Your task to perform on an android device: open app "LiveIn - Share Your Moment" (install if not already installed) and enter user name: "certifies@gmail.com" and password: "compartmented" Image 0: 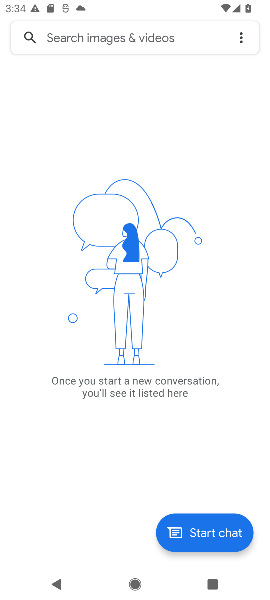
Step 0: click (43, 37)
Your task to perform on an android device: open app "LiveIn - Share Your Moment" (install if not already installed) and enter user name: "certifies@gmail.com" and password: "compartmented" Image 1: 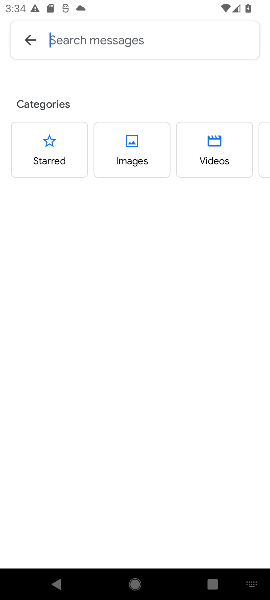
Step 1: click (36, 33)
Your task to perform on an android device: open app "LiveIn - Share Your Moment" (install if not already installed) and enter user name: "certifies@gmail.com" and password: "compartmented" Image 2: 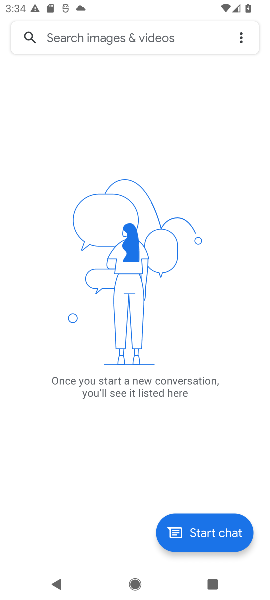
Step 2: press home button
Your task to perform on an android device: open app "LiveIn - Share Your Moment" (install if not already installed) and enter user name: "certifies@gmail.com" and password: "compartmented" Image 3: 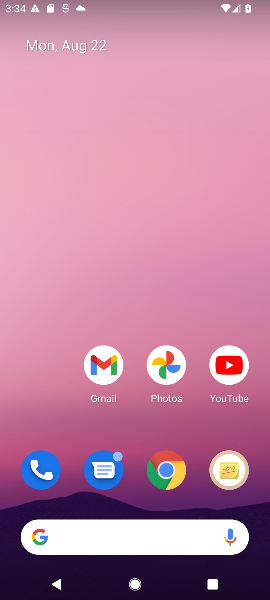
Step 3: drag from (113, 518) to (129, 141)
Your task to perform on an android device: open app "LiveIn - Share Your Moment" (install if not already installed) and enter user name: "certifies@gmail.com" and password: "compartmented" Image 4: 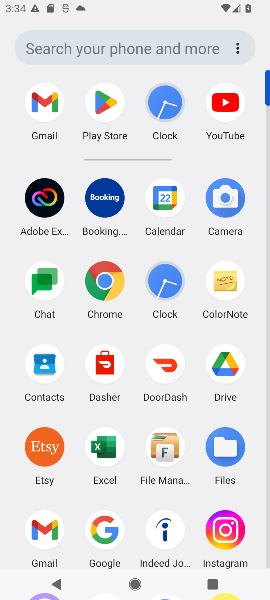
Step 4: click (102, 102)
Your task to perform on an android device: open app "LiveIn - Share Your Moment" (install if not already installed) and enter user name: "certifies@gmail.com" and password: "compartmented" Image 5: 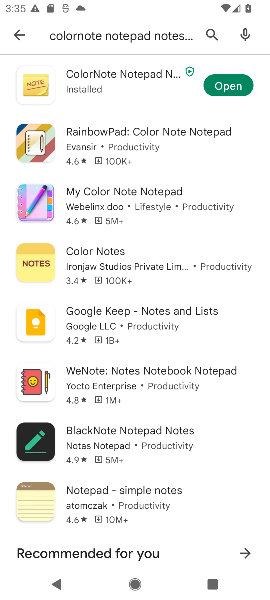
Step 5: click (24, 35)
Your task to perform on an android device: open app "LiveIn - Share Your Moment" (install if not already installed) and enter user name: "certifies@gmail.com" and password: "compartmented" Image 6: 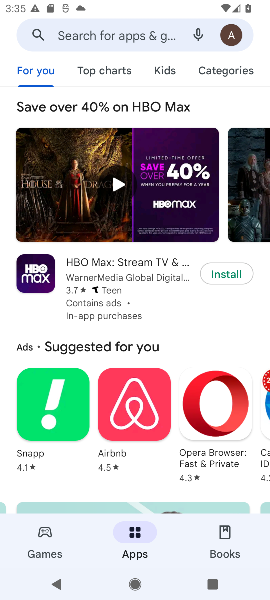
Step 6: click (102, 28)
Your task to perform on an android device: open app "LiveIn - Share Your Moment" (install if not already installed) and enter user name: "certifies@gmail.com" and password: "compartmented" Image 7: 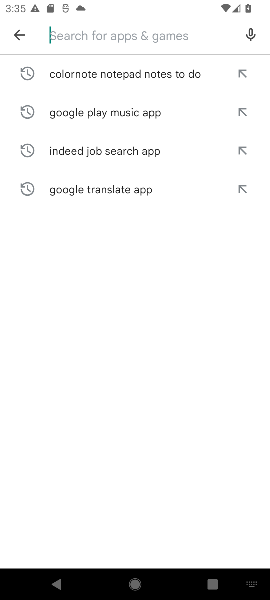
Step 7: type "LiveIn - Share Your Moment" (install if not already installed) and enter user name "
Your task to perform on an android device: open app "LiveIn - Share Your Moment" (install if not already installed) and enter user name: "certifies@gmail.com" and password: "compartmented" Image 8: 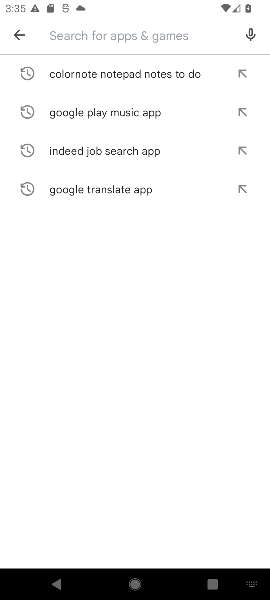
Step 8: click (93, 36)
Your task to perform on an android device: open app "LiveIn - Share Your Moment" (install if not already installed) and enter user name: "certifies@gmail.com" and password: "compartmented" Image 9: 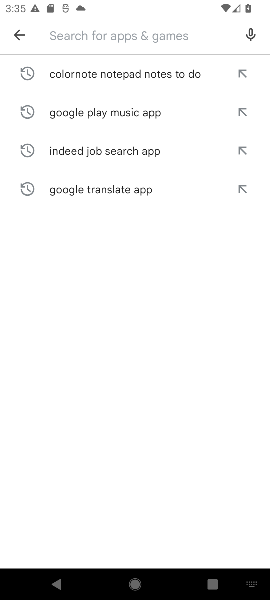
Step 9: type "LiveIn - Share Your Moment" (install if not already installed) and enter user name "
Your task to perform on an android device: open app "LiveIn - Share Your Moment" (install if not already installed) and enter user name: "certifies@gmail.com" and password: "compartmented" Image 10: 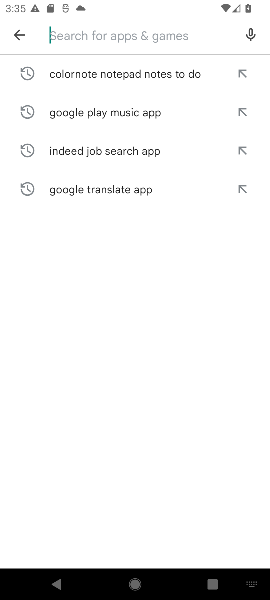
Step 10: click (92, 29)
Your task to perform on an android device: open app "LiveIn - Share Your Moment" (install if not already installed) and enter user name: "certifies@gmail.com" and password: "compartmented" Image 11: 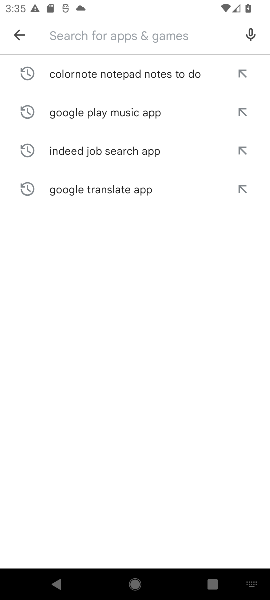
Step 11: click (92, 29)
Your task to perform on an android device: open app "LiveIn - Share Your Moment" (install if not already installed) and enter user name: "certifies@gmail.com" and password: "compartmented" Image 12: 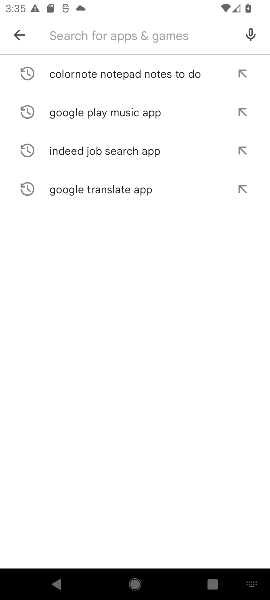
Step 12: click (24, 34)
Your task to perform on an android device: open app "LiveIn - Share Your Moment" (install if not already installed) and enter user name: "certifies@gmail.com" and password: "compartmented" Image 13: 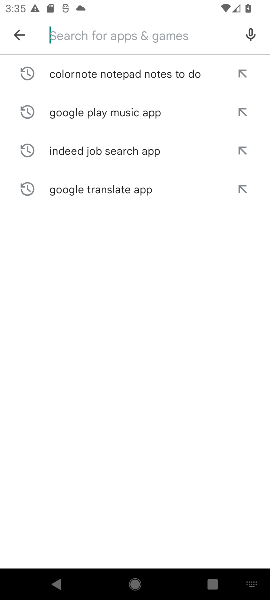
Step 13: click (78, 26)
Your task to perform on an android device: open app "LiveIn - Share Your Moment" (install if not already installed) and enter user name: "certifies@gmail.com" and password: "compartmented" Image 14: 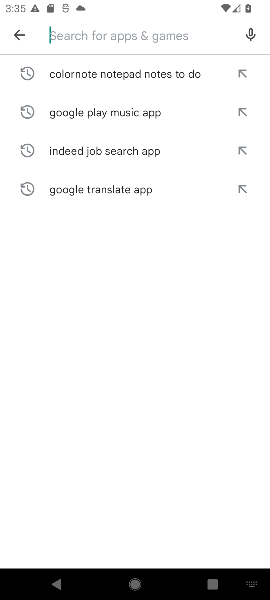
Step 14: type "LiveIn "
Your task to perform on an android device: open app "LiveIn - Share Your Moment" (install if not already installed) and enter user name: "certifies@gmail.com" and password: "compartmented" Image 15: 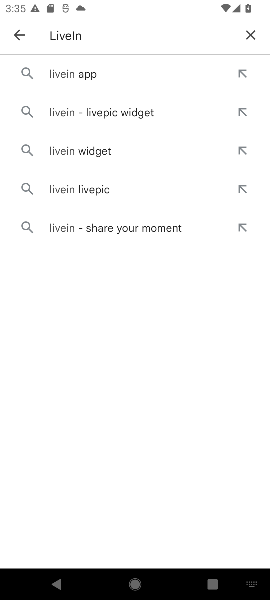
Step 15: click (82, 81)
Your task to perform on an android device: open app "LiveIn - Share Your Moment" (install if not already installed) and enter user name: "certifies@gmail.com" and password: "compartmented" Image 16: 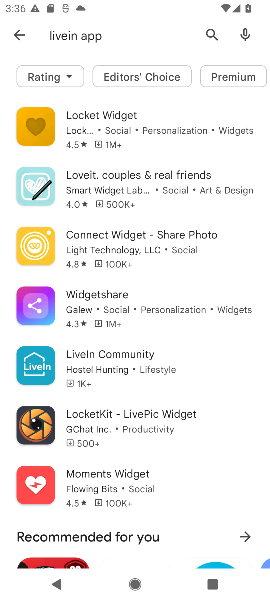
Step 16: drag from (125, 439) to (134, 191)
Your task to perform on an android device: open app "LiveIn - Share Your Moment" (install if not already installed) and enter user name: "certifies@gmail.com" and password: "compartmented" Image 17: 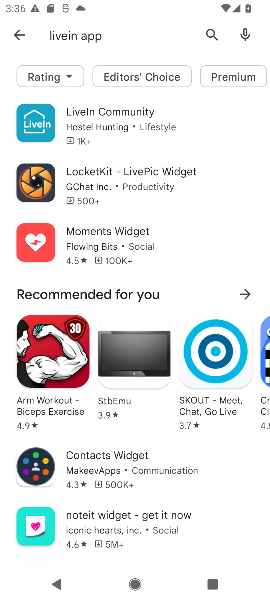
Step 17: drag from (110, 116) to (75, 531)
Your task to perform on an android device: open app "LiveIn - Share Your Moment" (install if not already installed) and enter user name: "certifies@gmail.com" and password: "compartmented" Image 18: 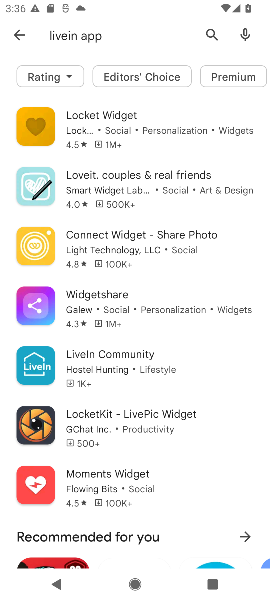
Step 18: click (19, 27)
Your task to perform on an android device: open app "LiveIn - Share Your Moment" (install if not already installed) and enter user name: "certifies@gmail.com" and password: "compartmented" Image 19: 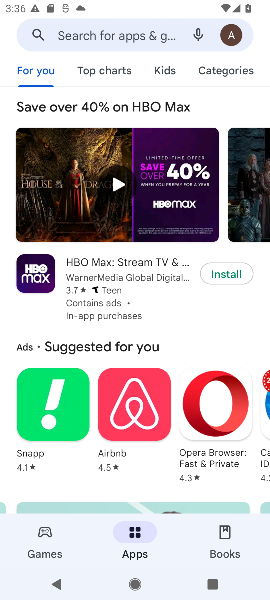
Step 19: click (99, 16)
Your task to perform on an android device: open app "LiveIn - Share Your Moment" (install if not already installed) and enter user name: "certifies@gmail.com" and password: "compartmented" Image 20: 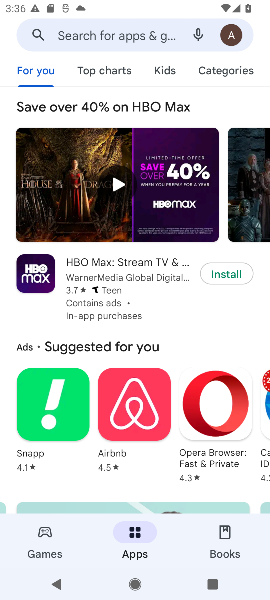
Step 20: click (99, 33)
Your task to perform on an android device: open app "LiveIn - Share Your Moment" (install if not already installed) and enter user name: "certifies@gmail.com" and password: "compartmented" Image 21: 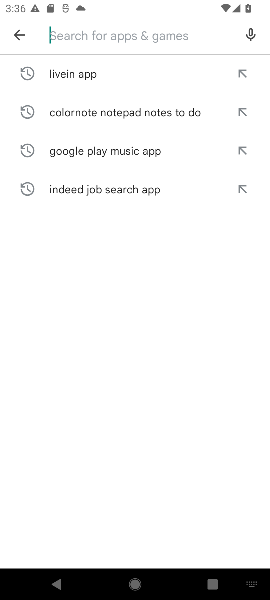
Step 21: type "l iveIn - Share Your Moment"
Your task to perform on an android device: open app "LiveIn - Share Your Moment" (install if not already installed) and enter user name: "certifies@gmail.com" and password: "compartmented" Image 22: 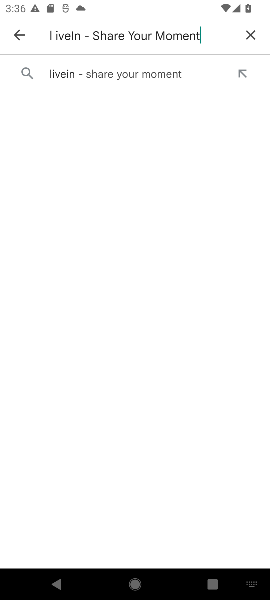
Step 22: click (74, 72)
Your task to perform on an android device: open app "LiveIn - Share Your Moment" (install if not already installed) and enter user name: "certifies@gmail.com" and password: "compartmented" Image 23: 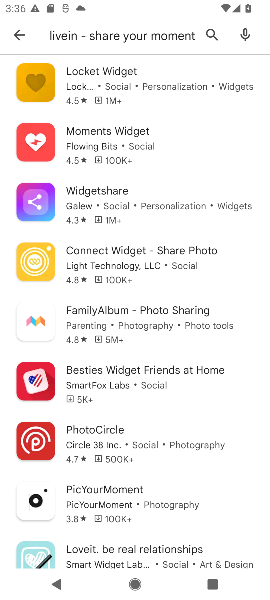
Step 23: task complete